Your task to perform on an android device: Go to Amazon Image 0: 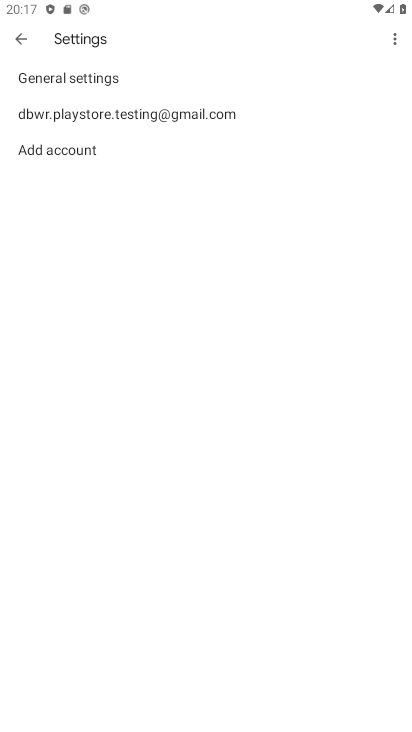
Step 0: press home button
Your task to perform on an android device: Go to Amazon Image 1: 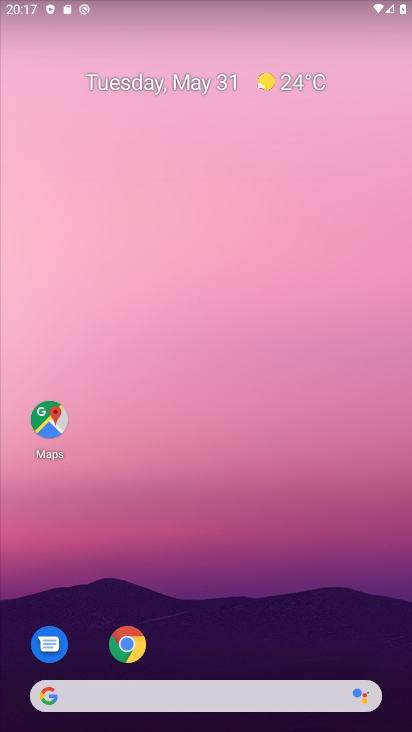
Step 1: drag from (357, 607) to (320, 277)
Your task to perform on an android device: Go to Amazon Image 2: 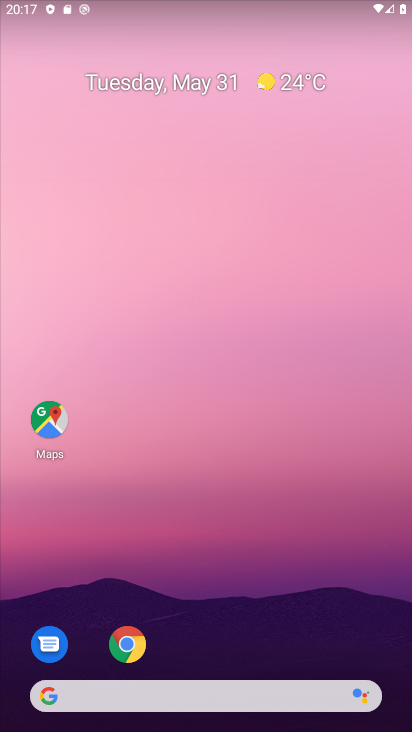
Step 2: drag from (310, 514) to (313, 215)
Your task to perform on an android device: Go to Amazon Image 3: 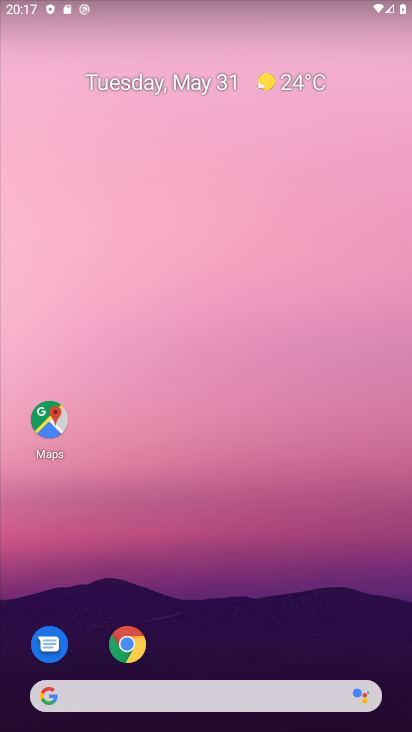
Step 3: drag from (328, 554) to (323, 136)
Your task to perform on an android device: Go to Amazon Image 4: 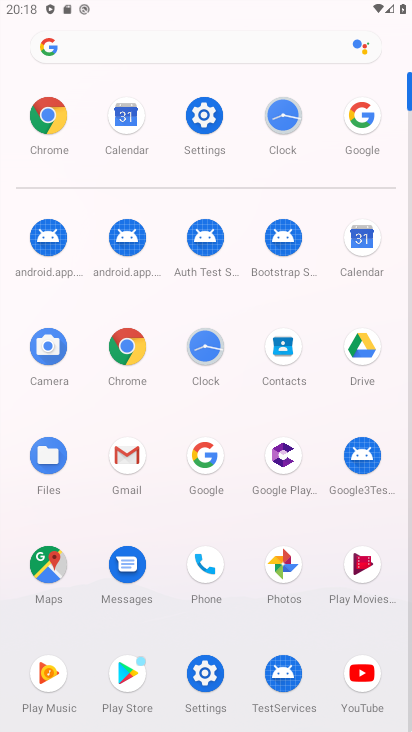
Step 4: click (129, 337)
Your task to perform on an android device: Go to Amazon Image 5: 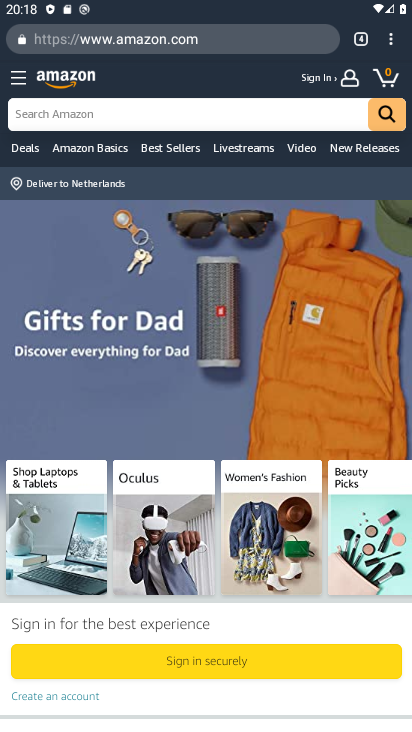
Step 5: task complete